Your task to perform on an android device: Open internet settings Image 0: 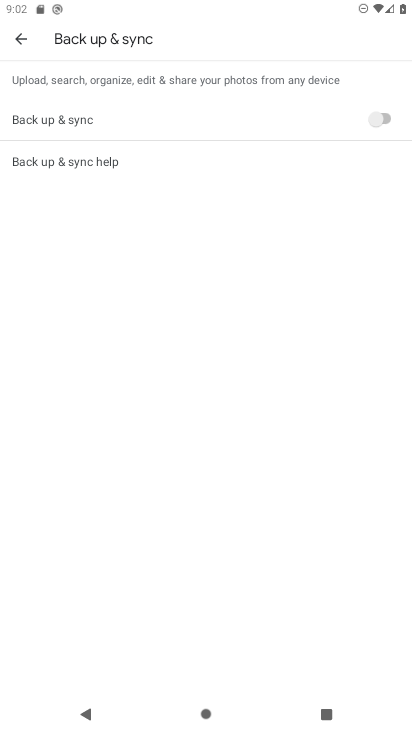
Step 0: drag from (231, 7) to (241, 716)
Your task to perform on an android device: Open internet settings Image 1: 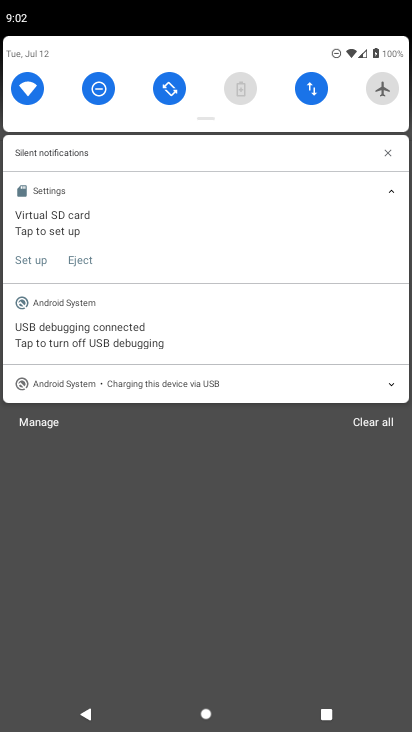
Step 1: click (305, 132)
Your task to perform on an android device: Open internet settings Image 2: 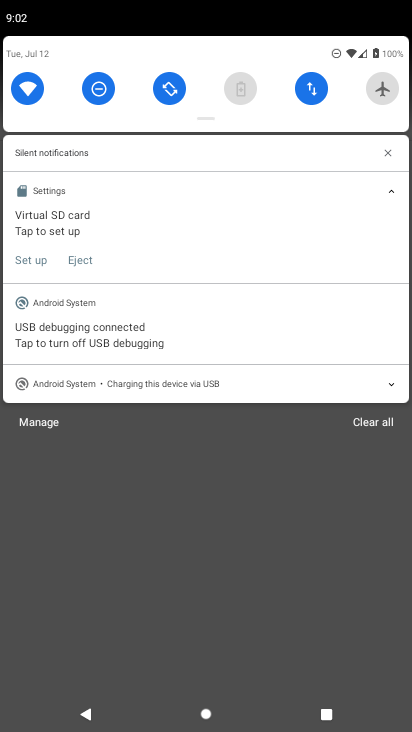
Step 2: click (305, 132)
Your task to perform on an android device: Open internet settings Image 3: 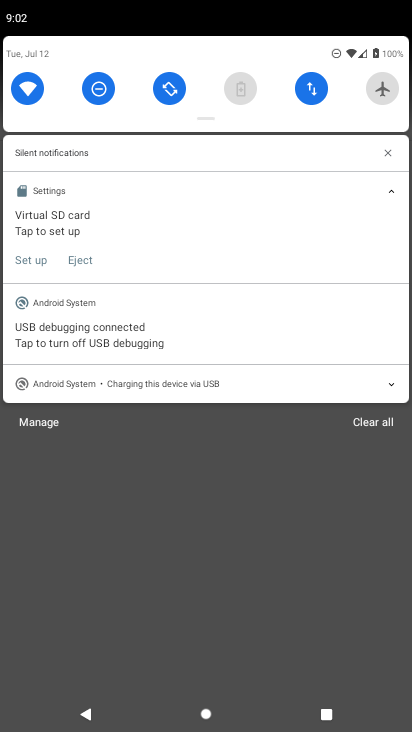
Step 3: click (313, 92)
Your task to perform on an android device: Open internet settings Image 4: 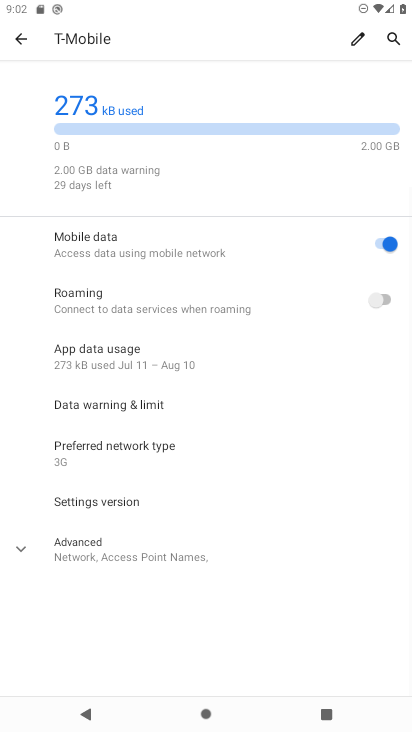
Step 4: task complete